Your task to perform on an android device: What is the news today? Image 0: 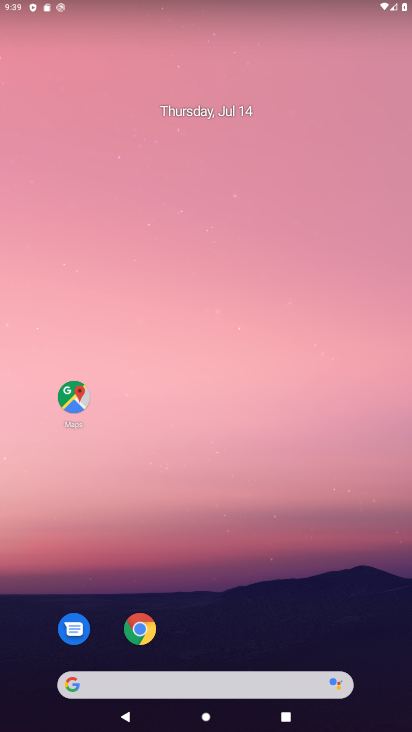
Step 0: drag from (212, 644) to (242, 148)
Your task to perform on an android device: What is the news today? Image 1: 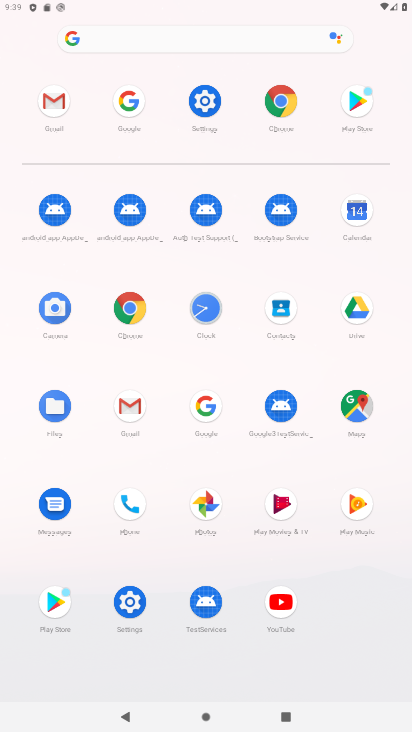
Step 1: click (218, 401)
Your task to perform on an android device: What is the news today? Image 2: 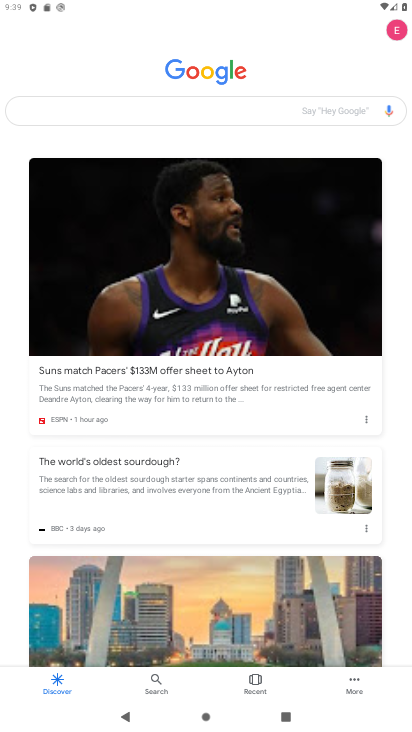
Step 2: click (182, 107)
Your task to perform on an android device: What is the news today? Image 3: 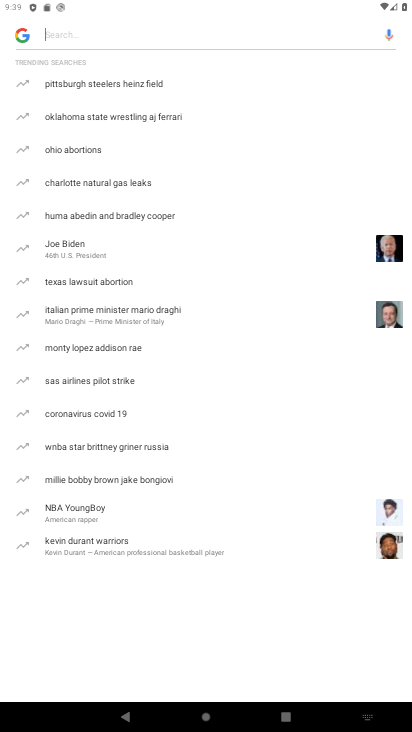
Step 3: type "what is news today?"
Your task to perform on an android device: What is the news today? Image 4: 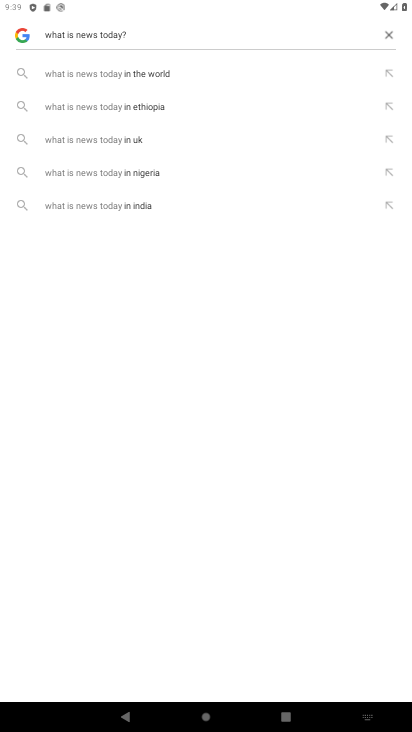
Step 4: click (385, 33)
Your task to perform on an android device: What is the news today? Image 5: 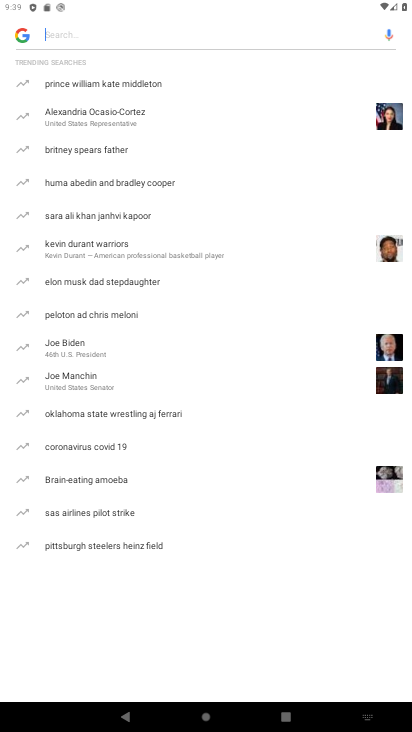
Step 5: type "news today"
Your task to perform on an android device: What is the news today? Image 6: 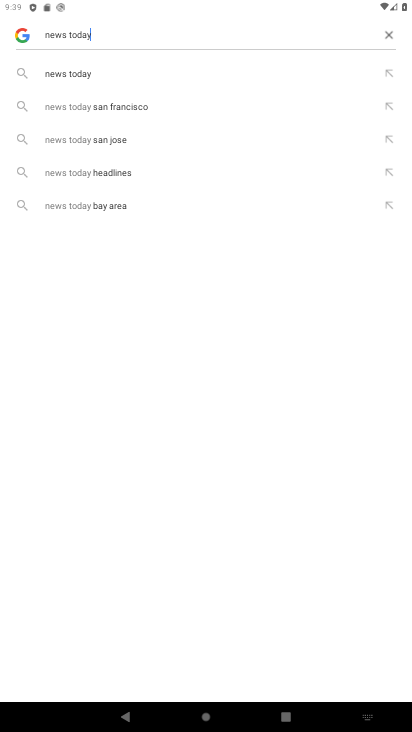
Step 6: click (97, 74)
Your task to perform on an android device: What is the news today? Image 7: 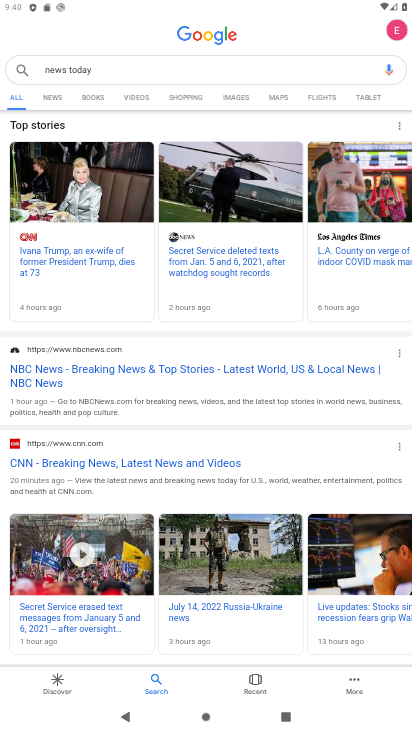
Step 7: task complete